Your task to perform on an android device: turn on priority inbox in the gmail app Image 0: 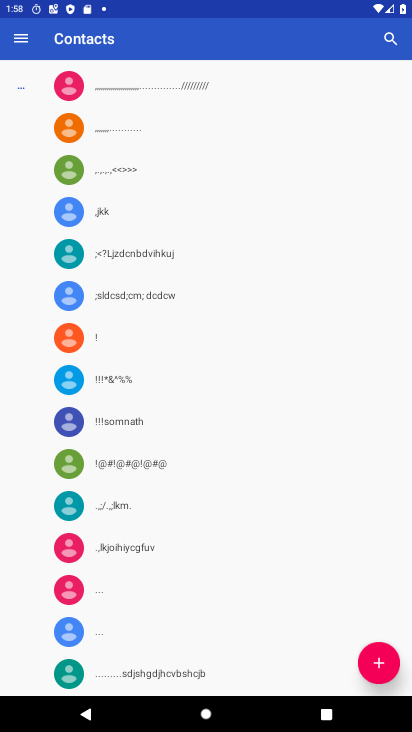
Step 0: press back button
Your task to perform on an android device: turn on priority inbox in the gmail app Image 1: 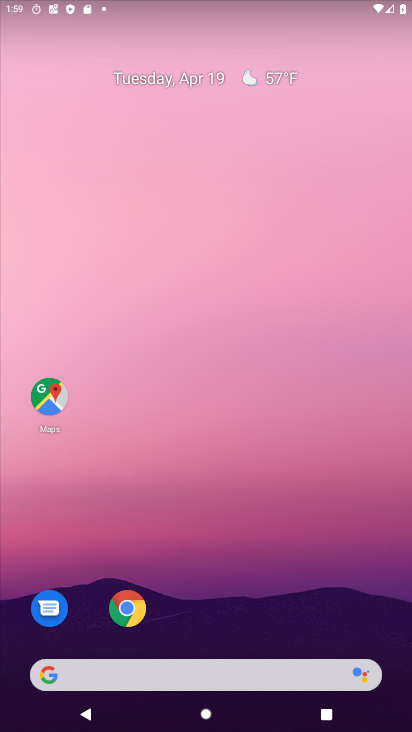
Step 1: drag from (179, 653) to (159, 255)
Your task to perform on an android device: turn on priority inbox in the gmail app Image 2: 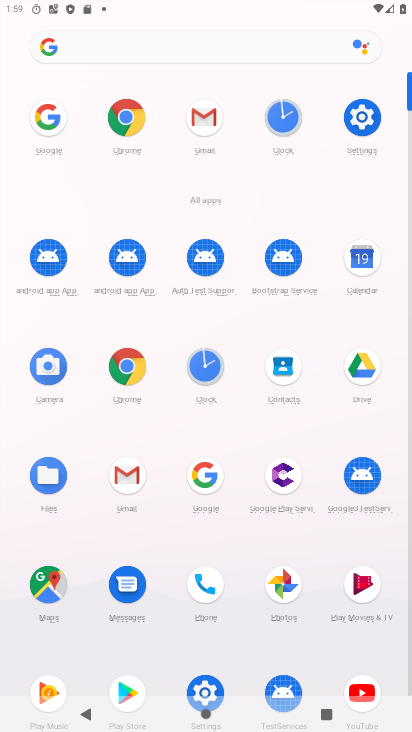
Step 2: click (202, 113)
Your task to perform on an android device: turn on priority inbox in the gmail app Image 3: 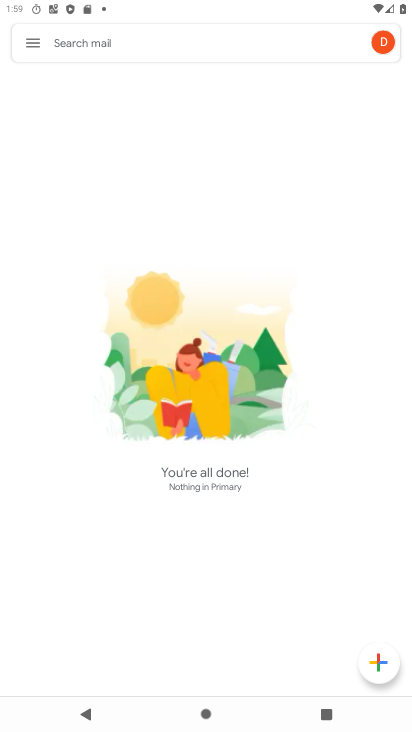
Step 3: click (31, 40)
Your task to perform on an android device: turn on priority inbox in the gmail app Image 4: 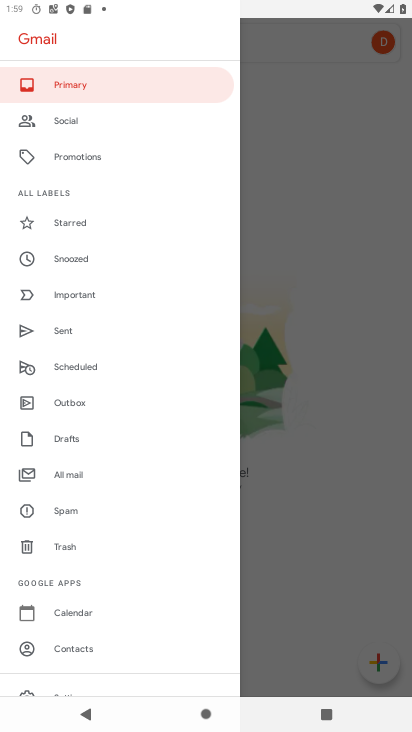
Step 4: drag from (138, 633) to (103, 269)
Your task to perform on an android device: turn on priority inbox in the gmail app Image 5: 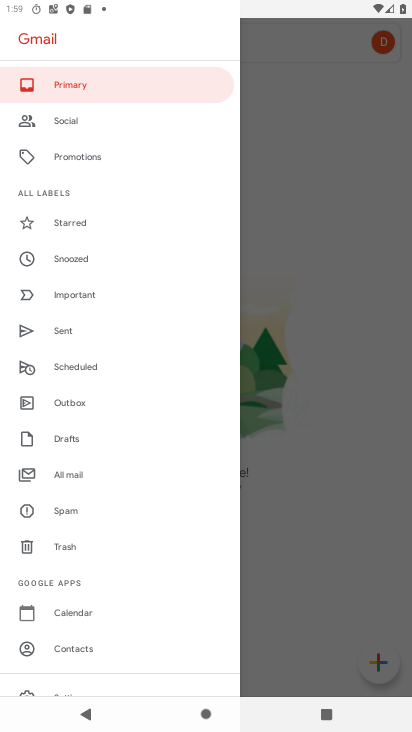
Step 5: drag from (115, 661) to (134, 365)
Your task to perform on an android device: turn on priority inbox in the gmail app Image 6: 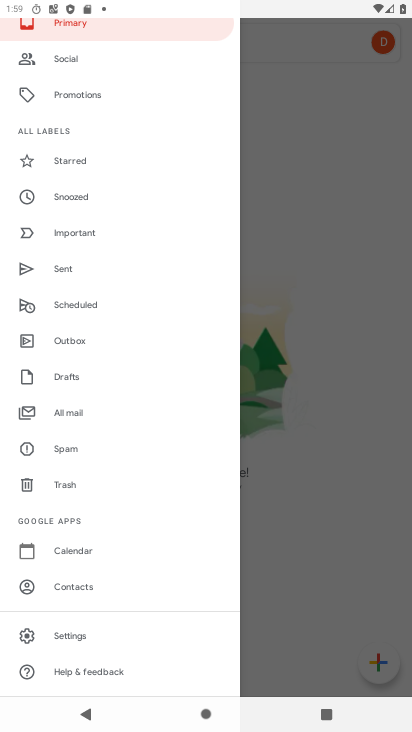
Step 6: click (57, 635)
Your task to perform on an android device: turn on priority inbox in the gmail app Image 7: 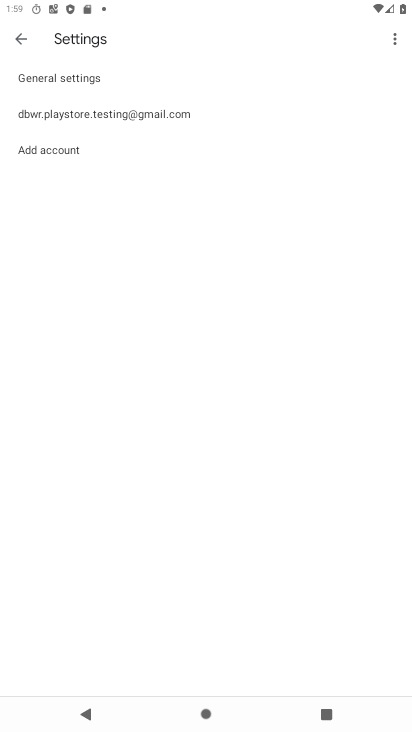
Step 7: click (108, 117)
Your task to perform on an android device: turn on priority inbox in the gmail app Image 8: 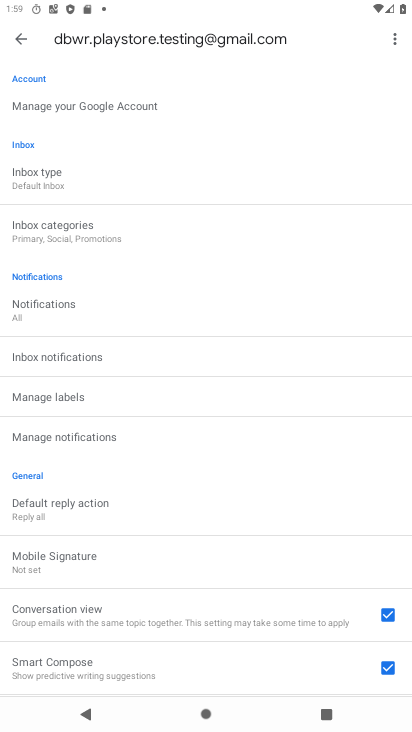
Step 8: click (37, 178)
Your task to perform on an android device: turn on priority inbox in the gmail app Image 9: 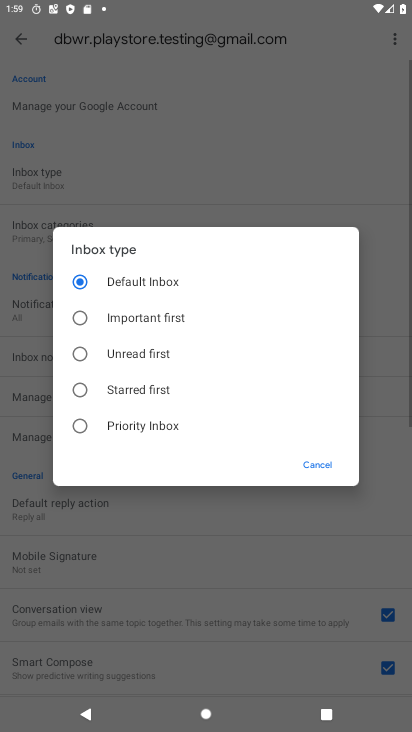
Step 9: click (114, 431)
Your task to perform on an android device: turn on priority inbox in the gmail app Image 10: 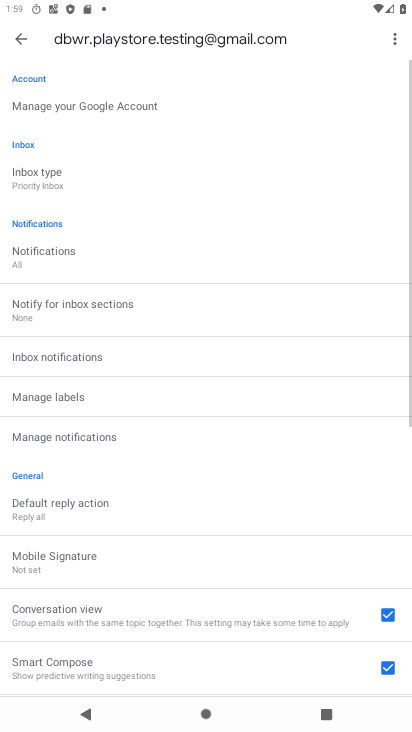
Step 10: task complete